Your task to perform on an android device: open a bookmark in the chrome app Image 0: 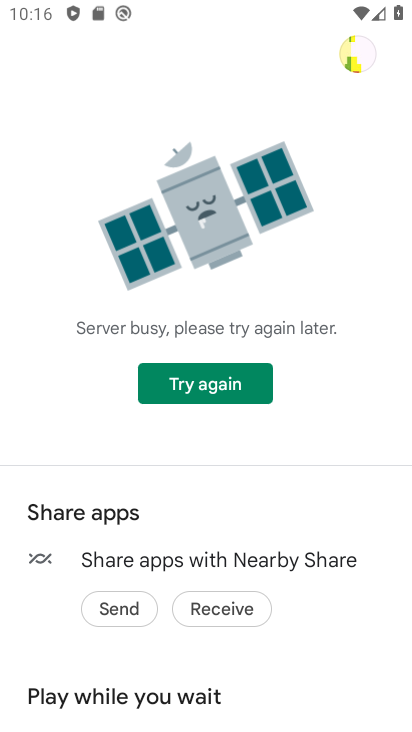
Step 0: press home button
Your task to perform on an android device: open a bookmark in the chrome app Image 1: 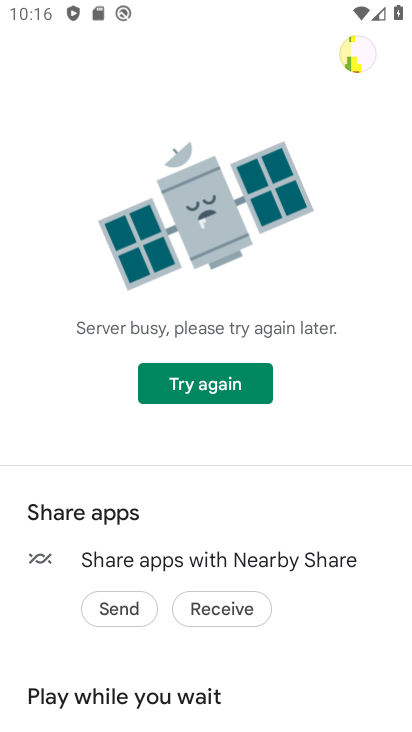
Step 1: press home button
Your task to perform on an android device: open a bookmark in the chrome app Image 2: 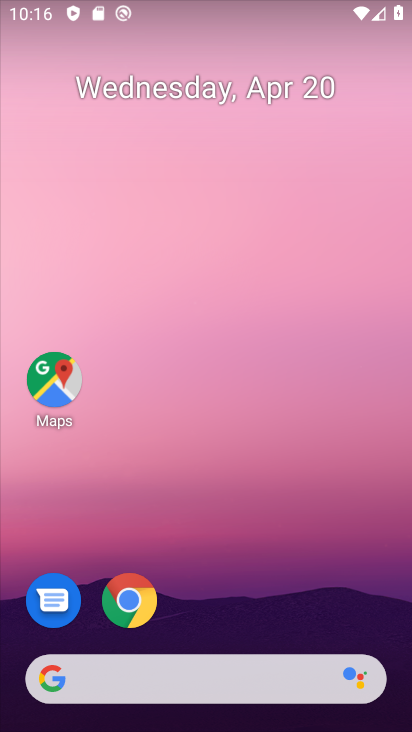
Step 2: drag from (247, 589) to (286, 76)
Your task to perform on an android device: open a bookmark in the chrome app Image 3: 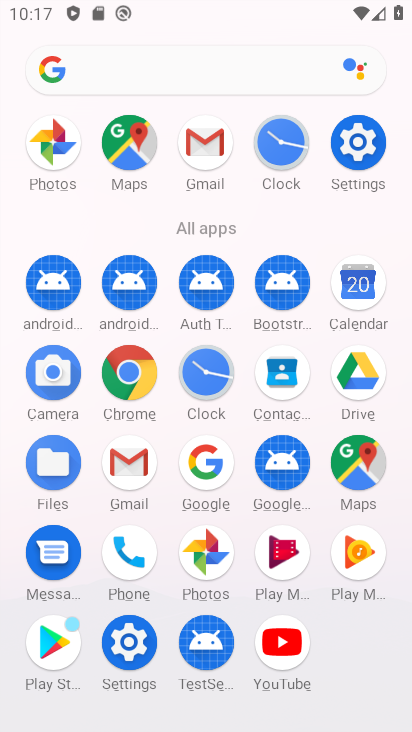
Step 3: click (135, 375)
Your task to perform on an android device: open a bookmark in the chrome app Image 4: 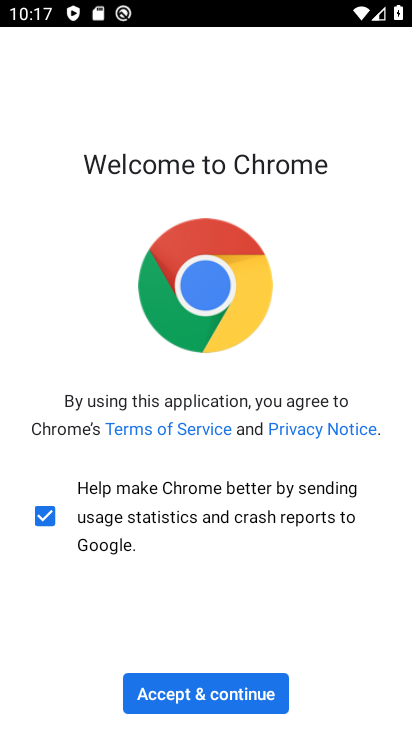
Step 4: click (198, 674)
Your task to perform on an android device: open a bookmark in the chrome app Image 5: 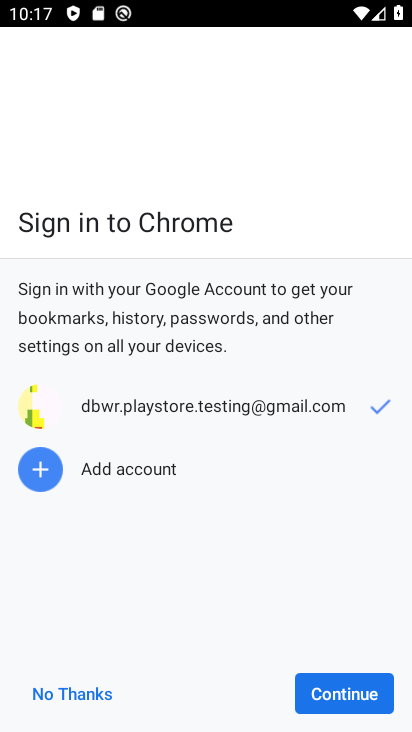
Step 5: click (321, 688)
Your task to perform on an android device: open a bookmark in the chrome app Image 6: 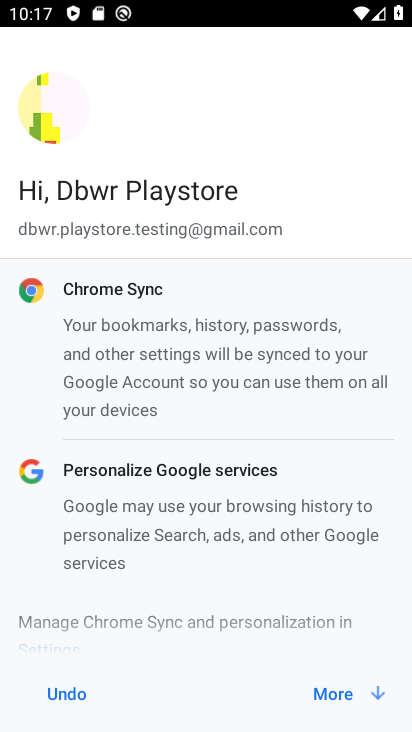
Step 6: click (320, 687)
Your task to perform on an android device: open a bookmark in the chrome app Image 7: 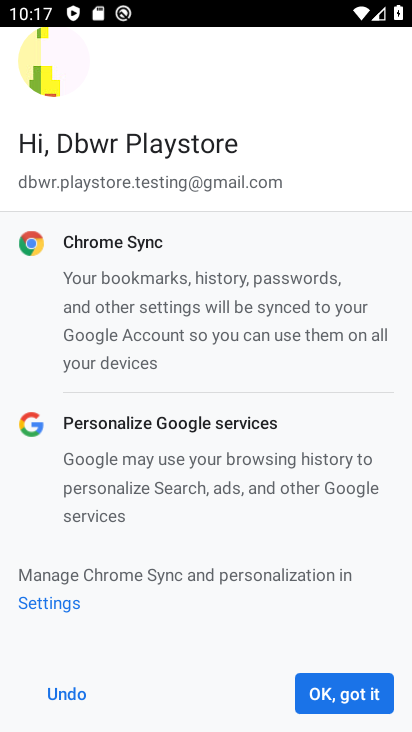
Step 7: click (320, 687)
Your task to perform on an android device: open a bookmark in the chrome app Image 8: 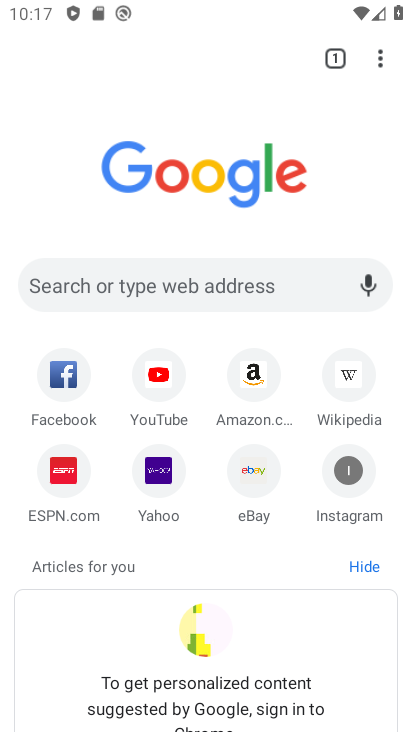
Step 8: task complete